Your task to perform on an android device: toggle notifications settings in the gmail app Image 0: 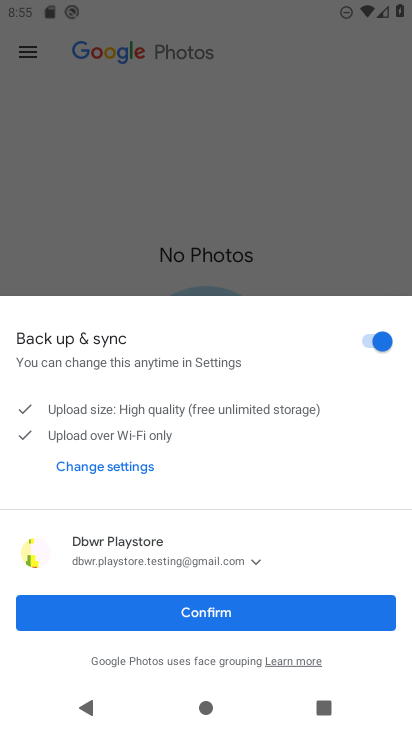
Step 0: press home button
Your task to perform on an android device: toggle notifications settings in the gmail app Image 1: 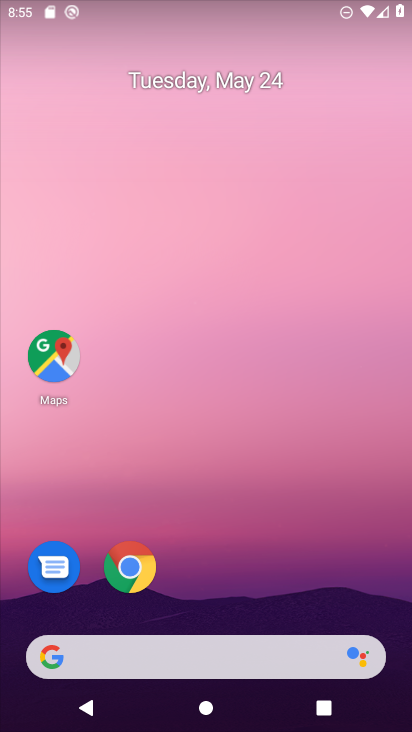
Step 1: drag from (173, 648) to (299, 105)
Your task to perform on an android device: toggle notifications settings in the gmail app Image 2: 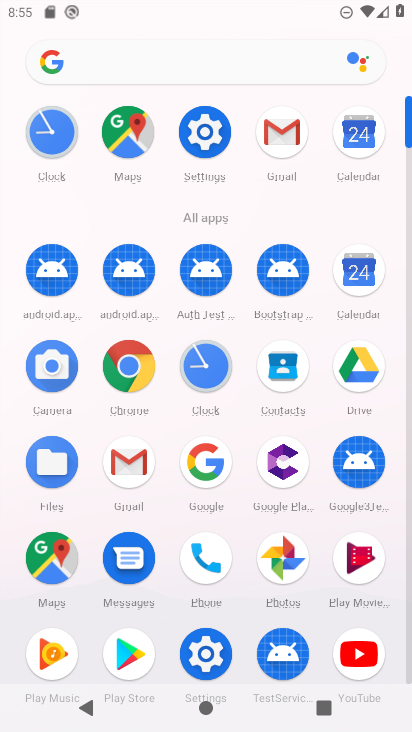
Step 2: click (289, 136)
Your task to perform on an android device: toggle notifications settings in the gmail app Image 3: 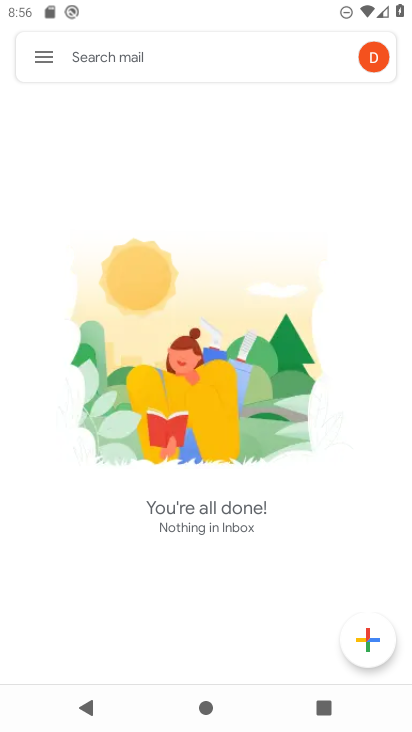
Step 3: click (40, 58)
Your task to perform on an android device: toggle notifications settings in the gmail app Image 4: 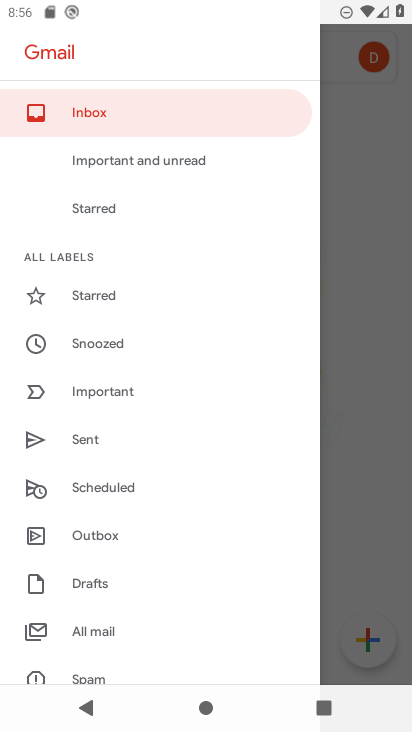
Step 4: drag from (131, 622) to (181, 165)
Your task to perform on an android device: toggle notifications settings in the gmail app Image 5: 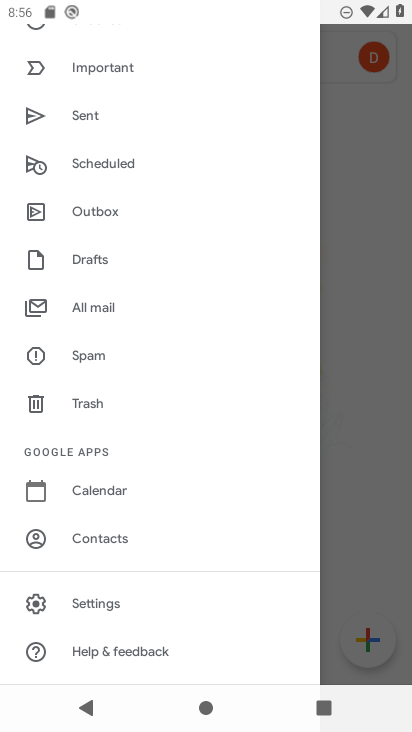
Step 5: click (89, 606)
Your task to perform on an android device: toggle notifications settings in the gmail app Image 6: 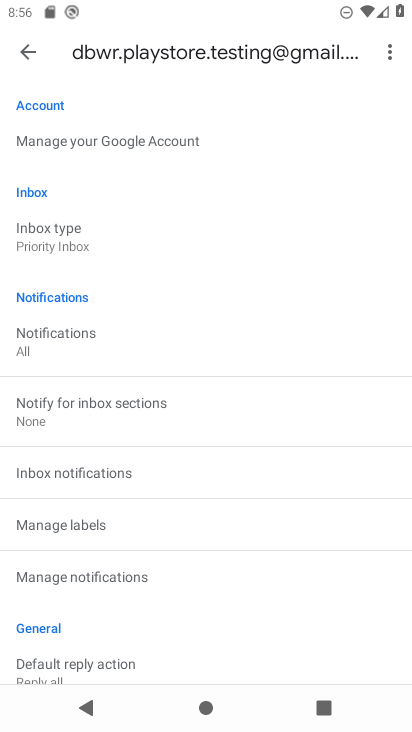
Step 6: click (69, 348)
Your task to perform on an android device: toggle notifications settings in the gmail app Image 7: 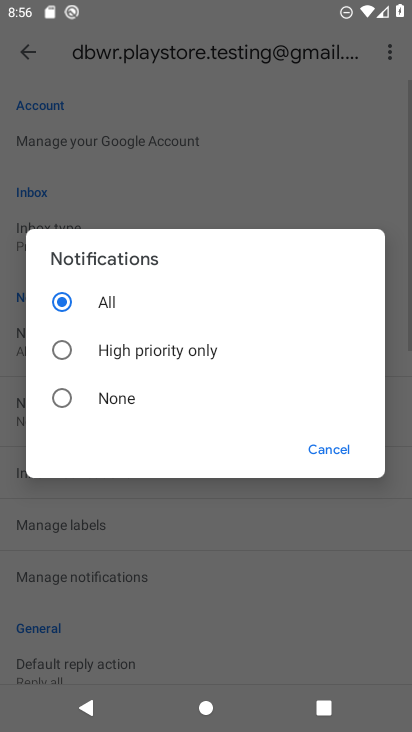
Step 7: click (64, 403)
Your task to perform on an android device: toggle notifications settings in the gmail app Image 8: 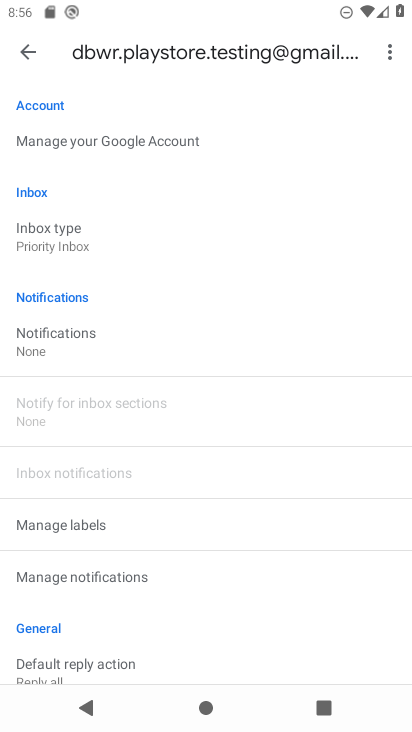
Step 8: task complete